Your task to perform on an android device: Check the news Image 0: 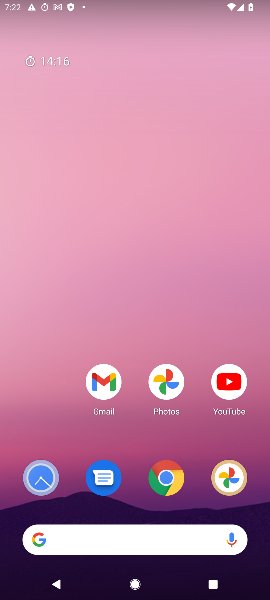
Step 0: drag from (133, 489) to (121, 152)
Your task to perform on an android device: Check the news Image 1: 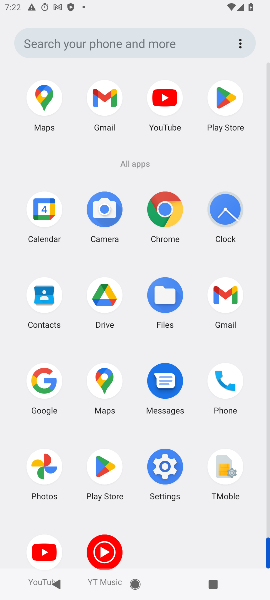
Step 1: click (164, 200)
Your task to perform on an android device: Check the news Image 2: 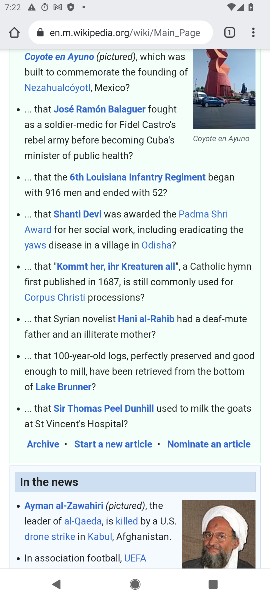
Step 2: drag from (137, 441) to (202, 43)
Your task to perform on an android device: Check the news Image 3: 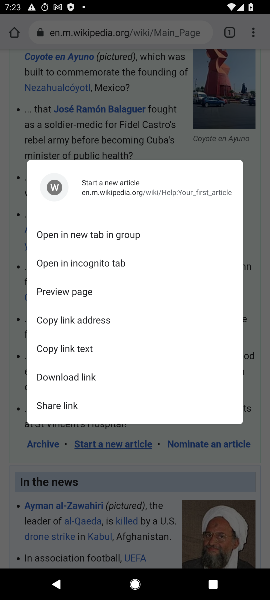
Step 3: drag from (147, 358) to (103, 540)
Your task to perform on an android device: Check the news Image 4: 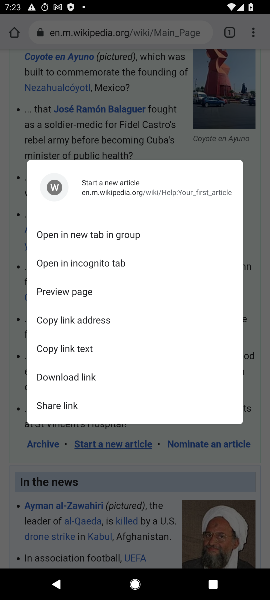
Step 4: press back button
Your task to perform on an android device: Check the news Image 5: 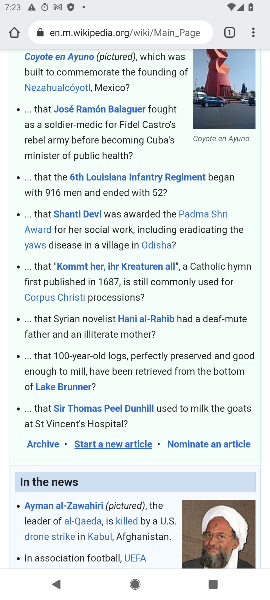
Step 5: drag from (148, 92) to (184, 539)
Your task to perform on an android device: Check the news Image 6: 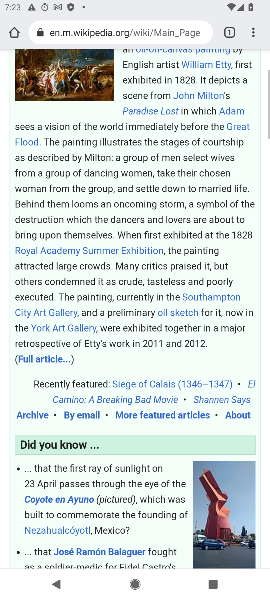
Step 6: click (104, 33)
Your task to perform on an android device: Check the news Image 7: 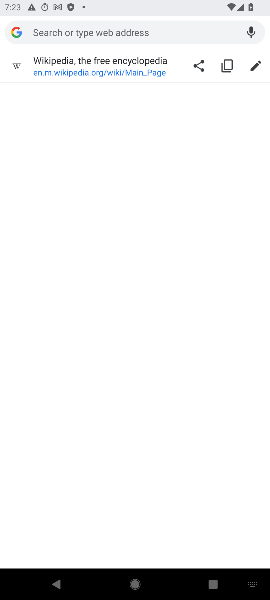
Step 7: type "news"
Your task to perform on an android device: Check the news Image 8: 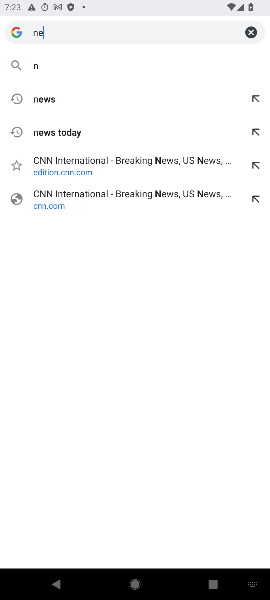
Step 8: type ""
Your task to perform on an android device: Check the news Image 9: 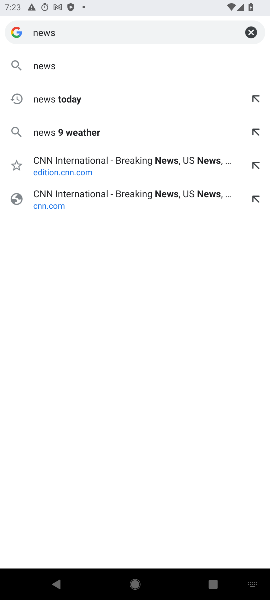
Step 9: click (41, 60)
Your task to perform on an android device: Check the news Image 10: 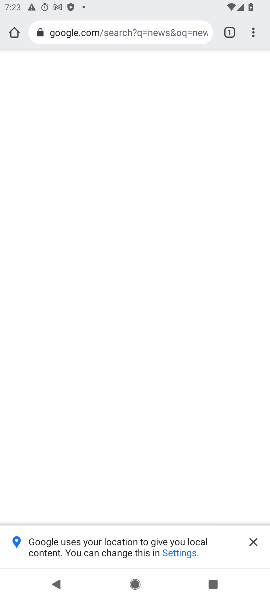
Step 10: task complete